Your task to perform on an android device: Open Chrome and go to settings Image 0: 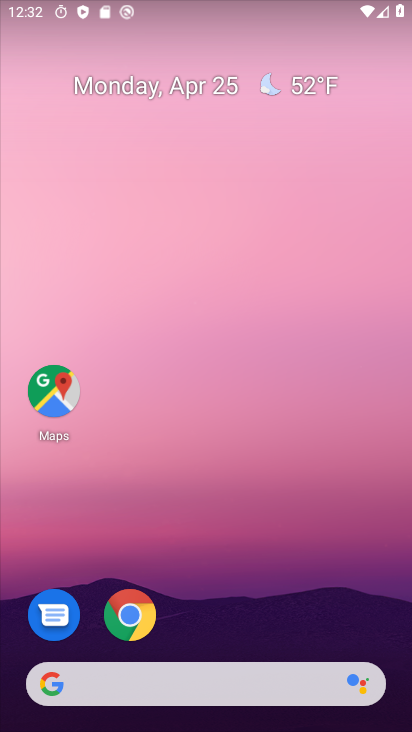
Step 0: drag from (207, 658) to (205, 10)
Your task to perform on an android device: Open Chrome and go to settings Image 1: 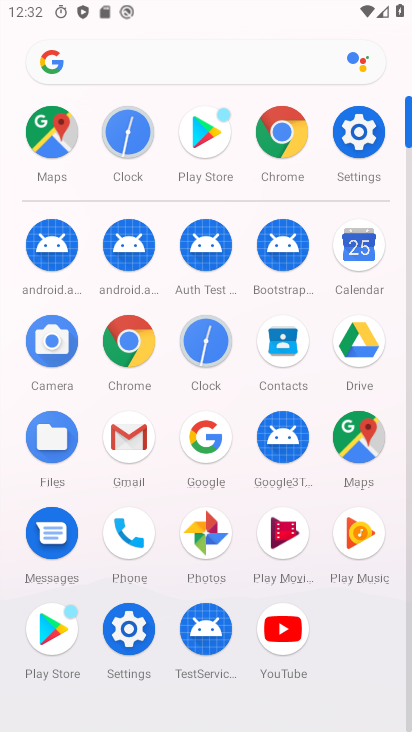
Step 1: click (131, 335)
Your task to perform on an android device: Open Chrome and go to settings Image 2: 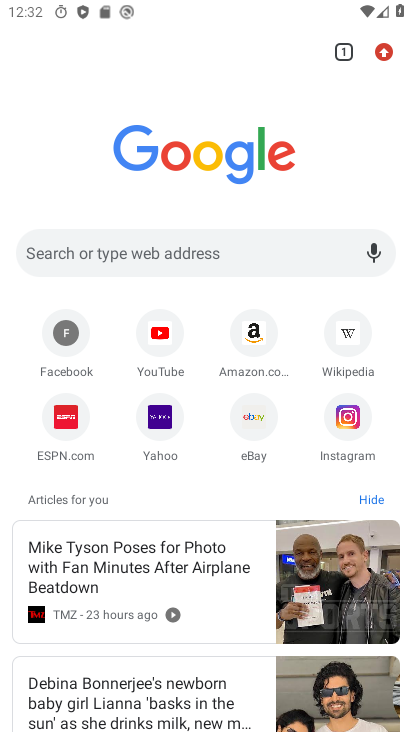
Step 2: task complete